Your task to perform on an android device: Go to privacy settings Image 0: 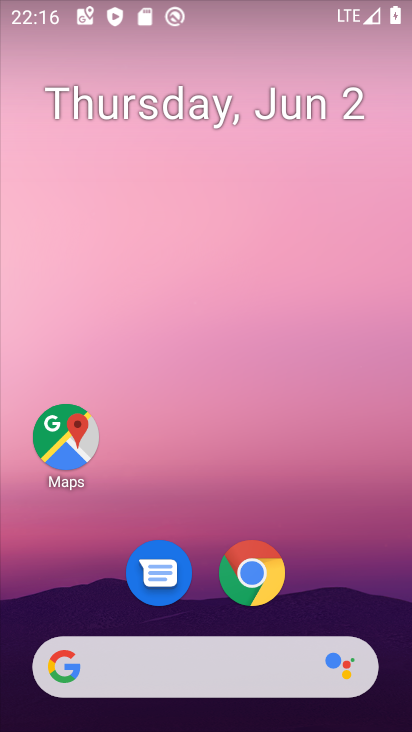
Step 0: drag from (321, 569) to (266, 60)
Your task to perform on an android device: Go to privacy settings Image 1: 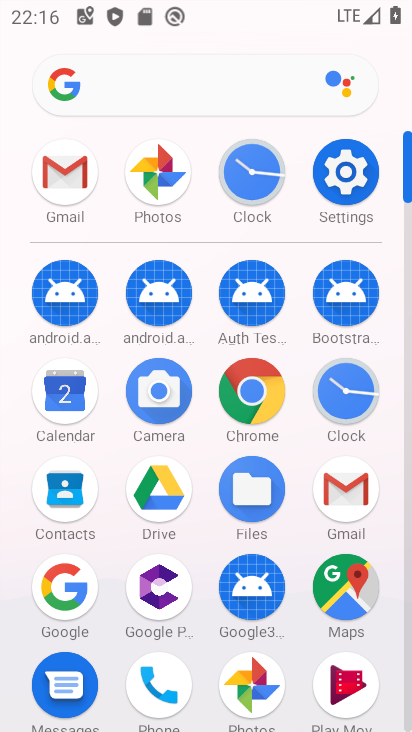
Step 1: click (350, 190)
Your task to perform on an android device: Go to privacy settings Image 2: 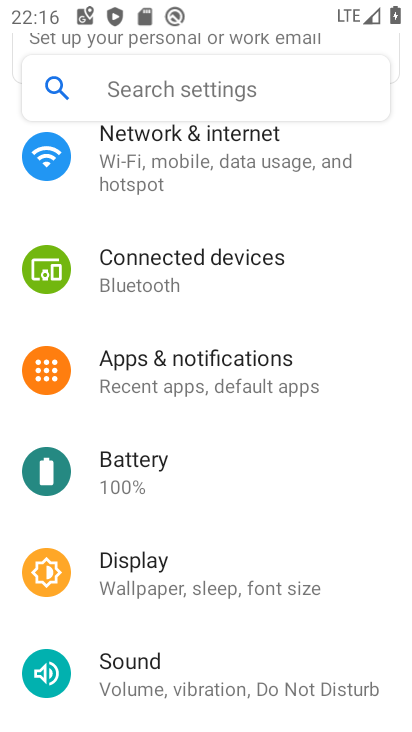
Step 2: drag from (278, 590) to (246, 189)
Your task to perform on an android device: Go to privacy settings Image 3: 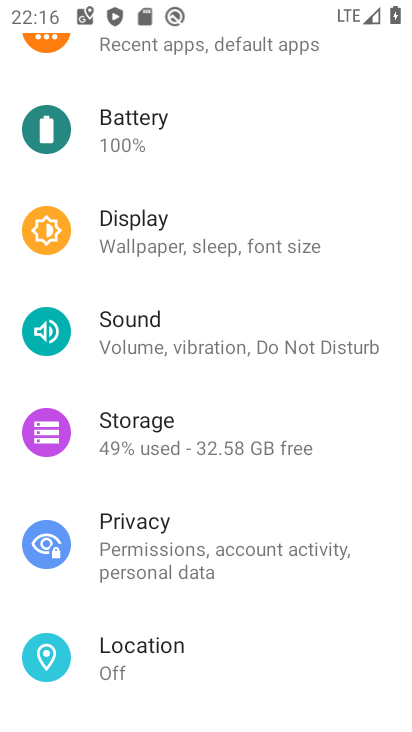
Step 3: click (212, 550)
Your task to perform on an android device: Go to privacy settings Image 4: 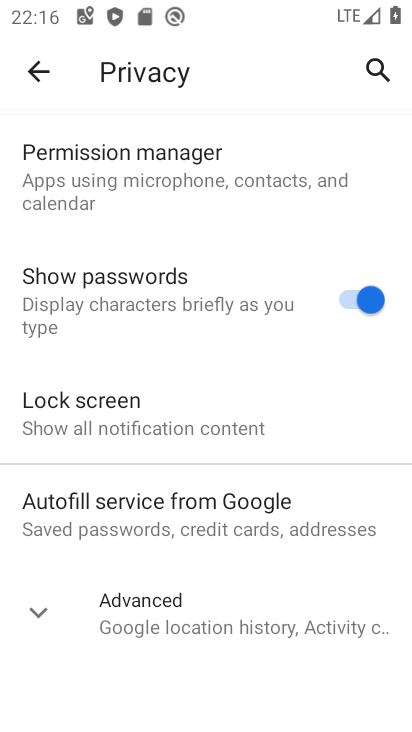
Step 4: task complete